Your task to perform on an android device: Open Maps and search for coffee Image 0: 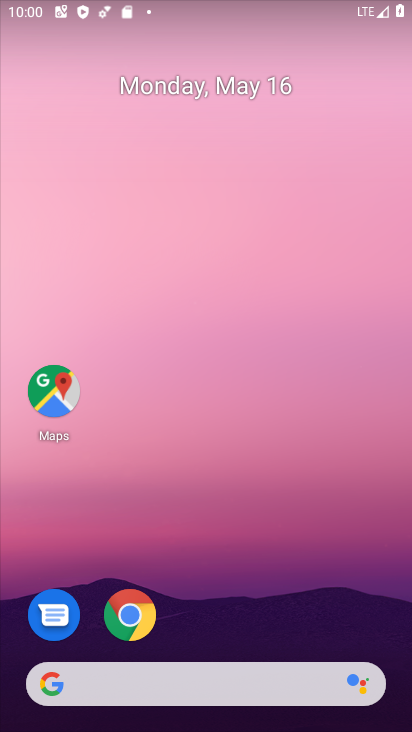
Step 0: drag from (210, 601) to (209, 94)
Your task to perform on an android device: Open Maps and search for coffee Image 1: 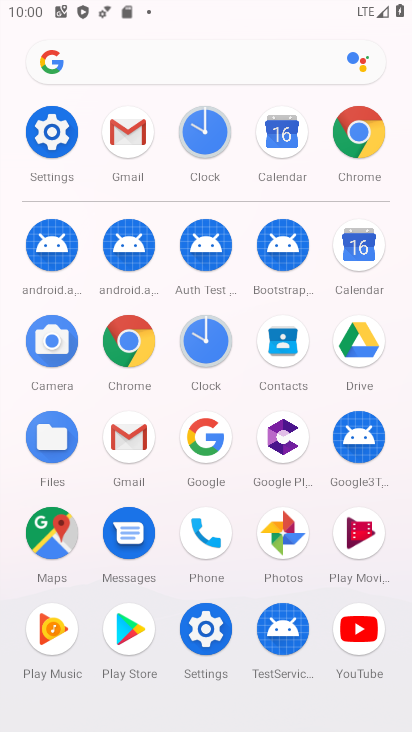
Step 1: click (68, 535)
Your task to perform on an android device: Open Maps and search for coffee Image 2: 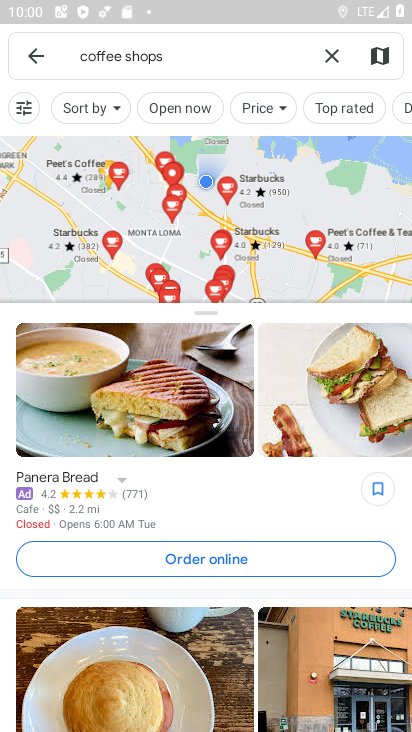
Step 2: click (336, 63)
Your task to perform on an android device: Open Maps and search for coffee Image 3: 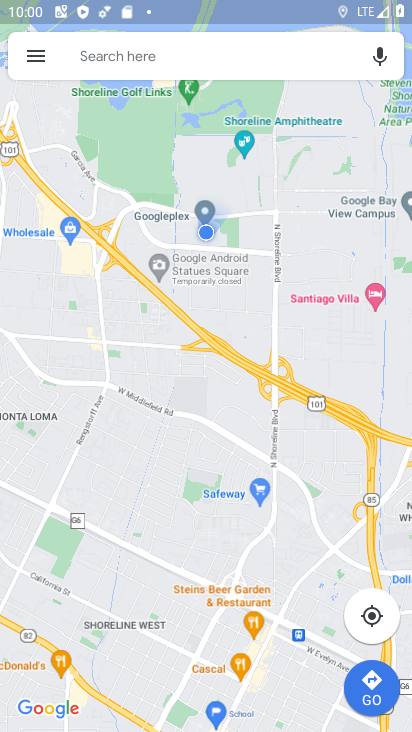
Step 3: click (115, 60)
Your task to perform on an android device: Open Maps and search for coffee Image 4: 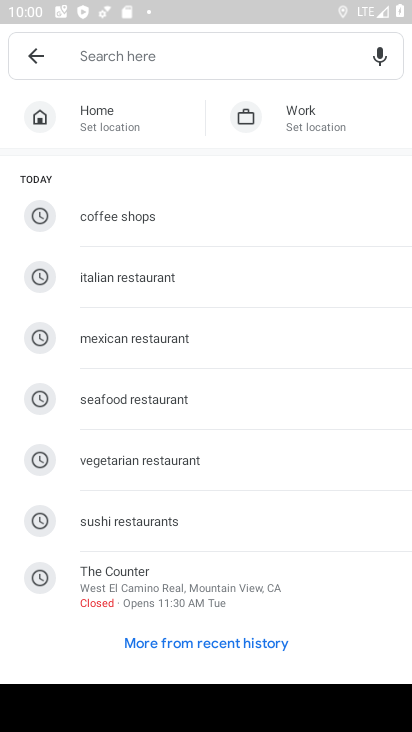
Step 4: type "coffee"
Your task to perform on an android device: Open Maps and search for coffee Image 5: 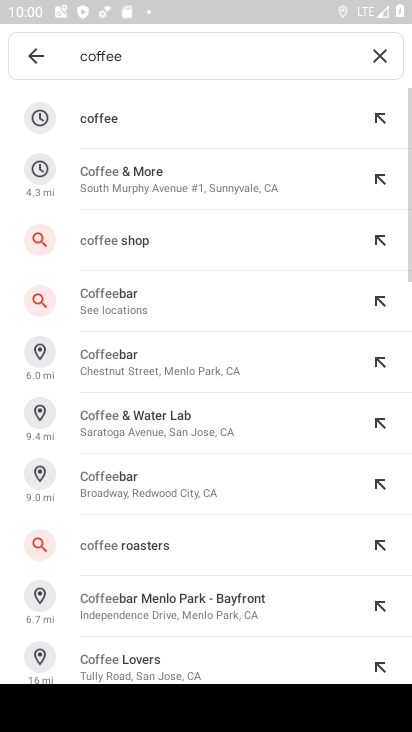
Step 5: click (196, 129)
Your task to perform on an android device: Open Maps and search for coffee Image 6: 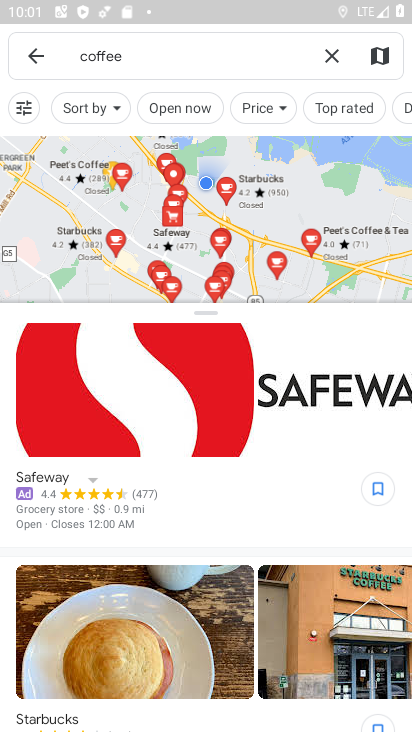
Step 6: task complete